Your task to perform on an android device: Open Amazon Image 0: 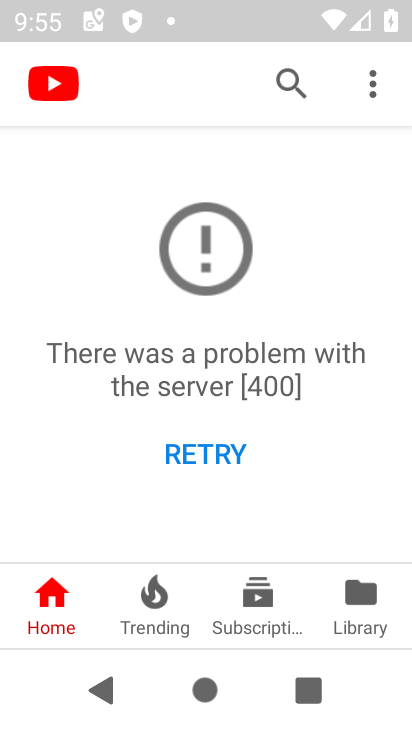
Step 0: press home button
Your task to perform on an android device: Open Amazon Image 1: 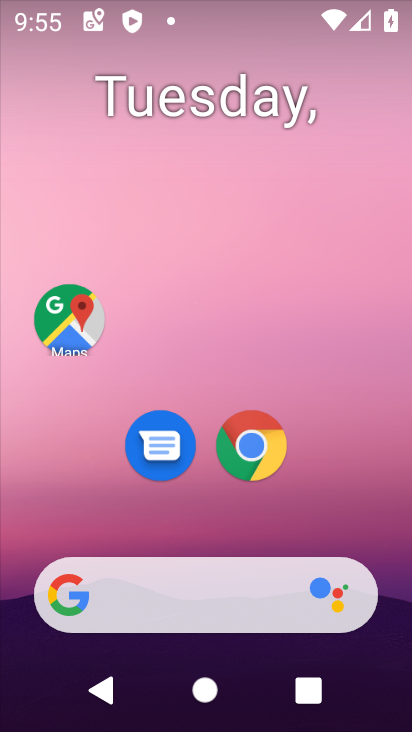
Step 1: click (259, 441)
Your task to perform on an android device: Open Amazon Image 2: 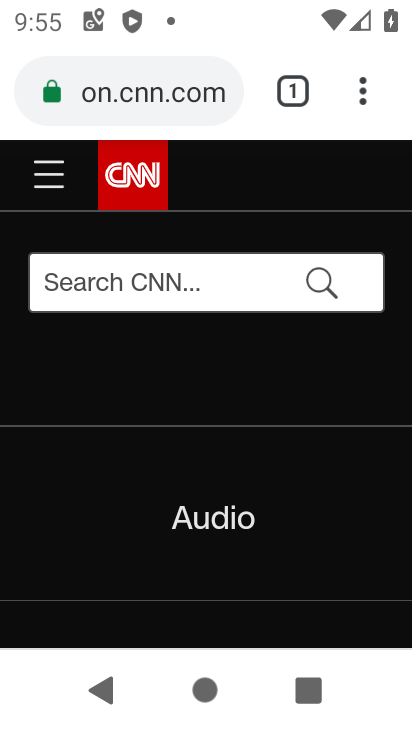
Step 2: click (298, 97)
Your task to perform on an android device: Open Amazon Image 3: 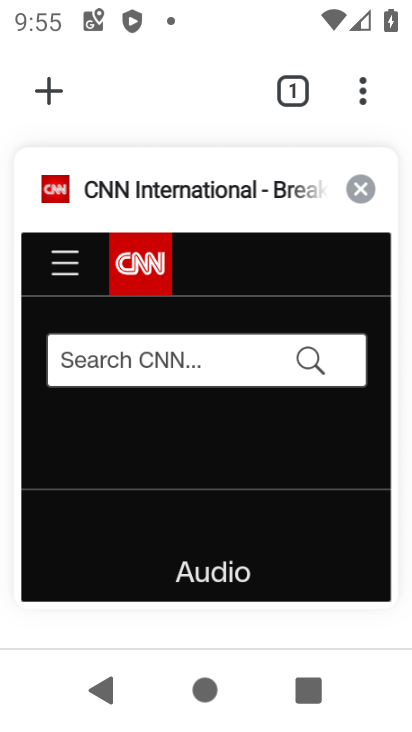
Step 3: click (41, 96)
Your task to perform on an android device: Open Amazon Image 4: 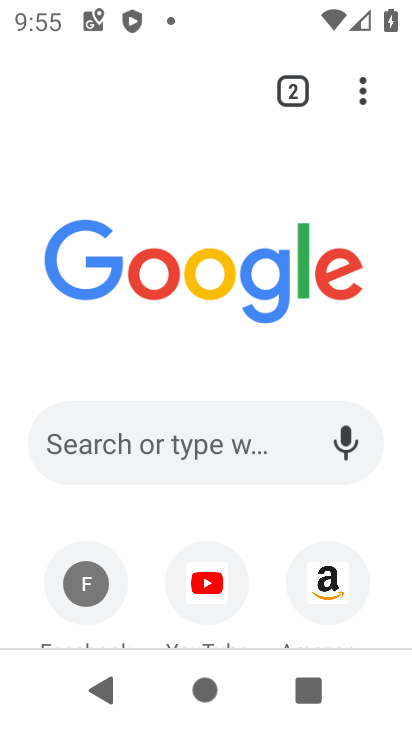
Step 4: drag from (397, 582) to (367, 298)
Your task to perform on an android device: Open Amazon Image 5: 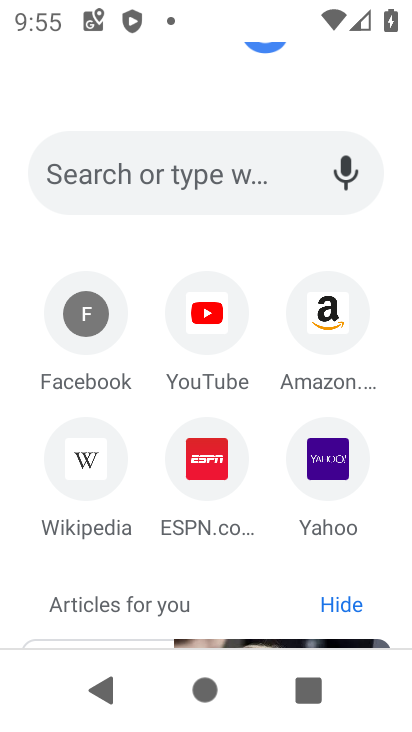
Step 5: click (344, 317)
Your task to perform on an android device: Open Amazon Image 6: 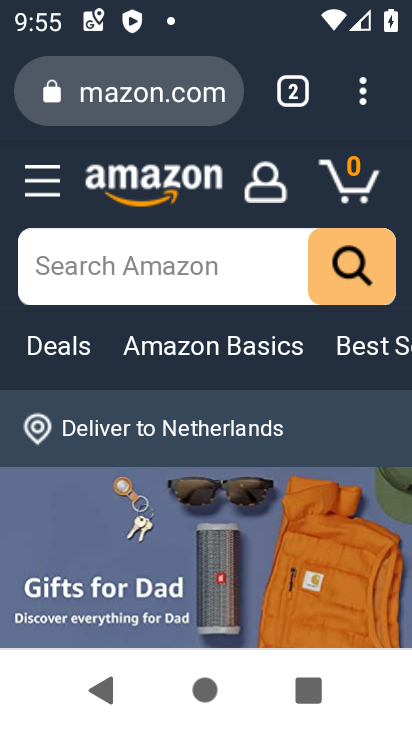
Step 6: task complete